Your task to perform on an android device: delete browsing data in the chrome app Image 0: 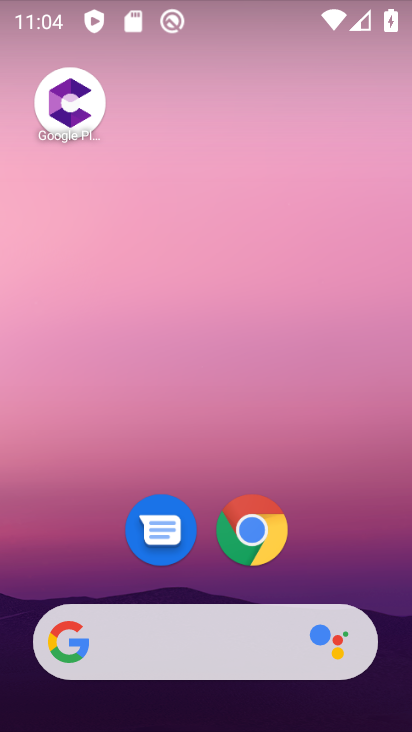
Step 0: click (249, 546)
Your task to perform on an android device: delete browsing data in the chrome app Image 1: 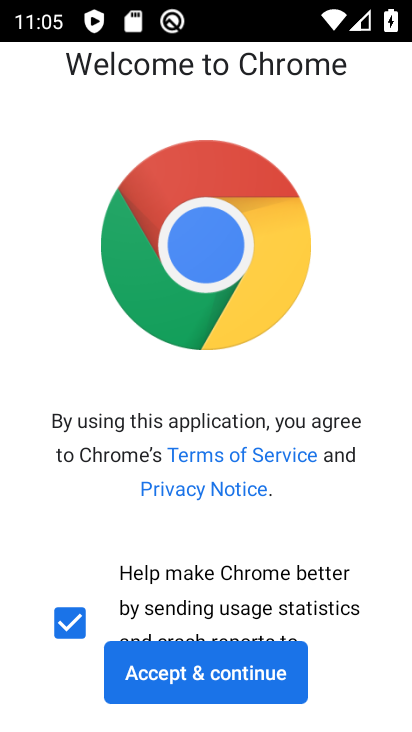
Step 1: click (178, 673)
Your task to perform on an android device: delete browsing data in the chrome app Image 2: 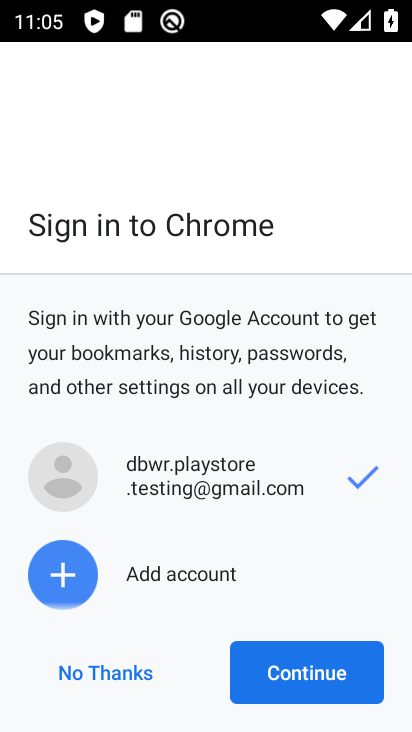
Step 2: click (281, 662)
Your task to perform on an android device: delete browsing data in the chrome app Image 3: 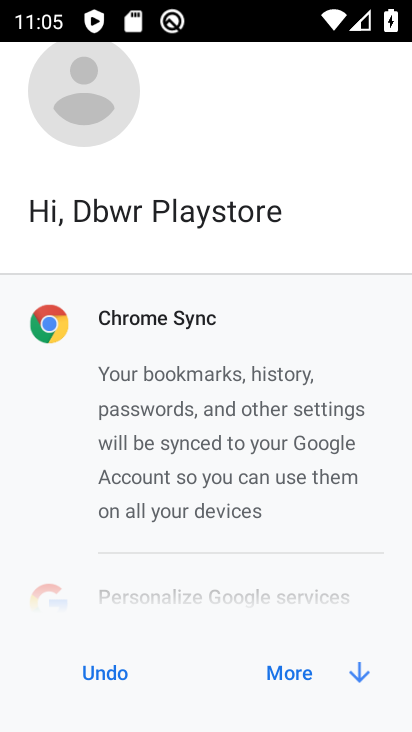
Step 3: click (280, 676)
Your task to perform on an android device: delete browsing data in the chrome app Image 4: 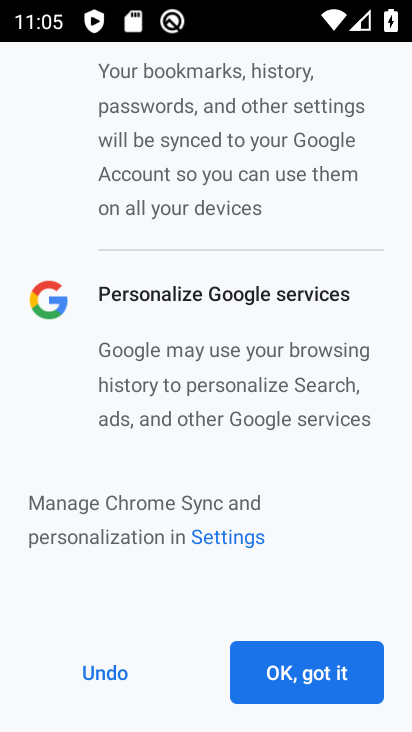
Step 4: click (353, 687)
Your task to perform on an android device: delete browsing data in the chrome app Image 5: 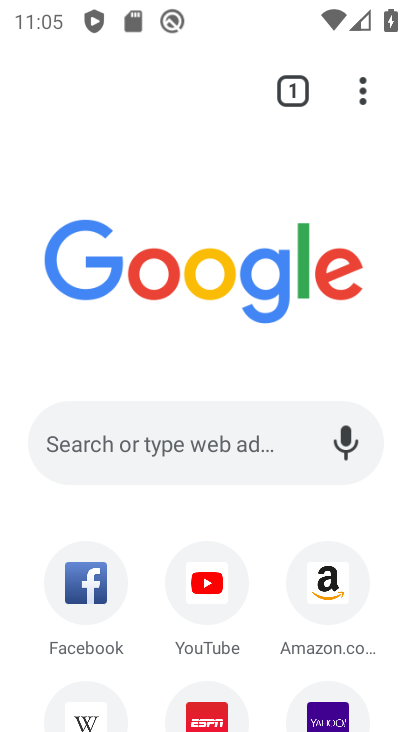
Step 5: click (362, 79)
Your task to perform on an android device: delete browsing data in the chrome app Image 6: 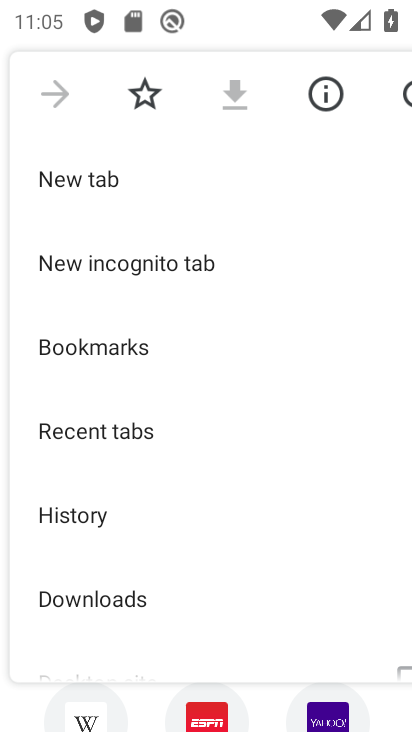
Step 6: click (113, 514)
Your task to perform on an android device: delete browsing data in the chrome app Image 7: 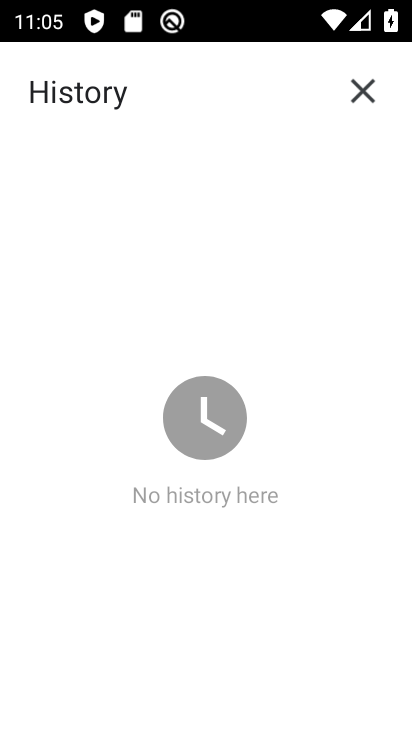
Step 7: task complete